Your task to perform on an android device: Open calendar and show me the second week of next month Image 0: 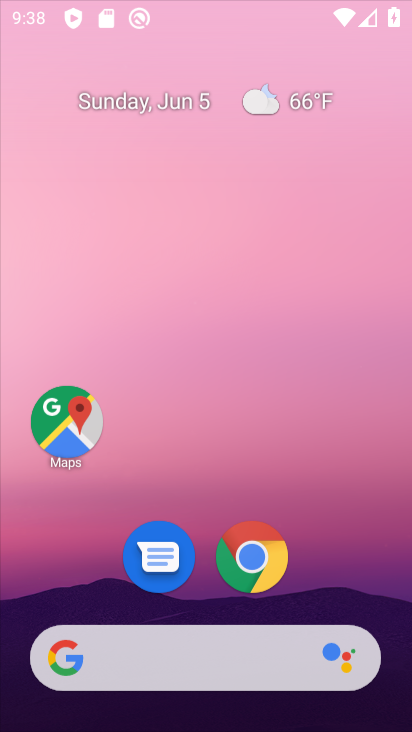
Step 0: press home button
Your task to perform on an android device: Open calendar and show me the second week of next month Image 1: 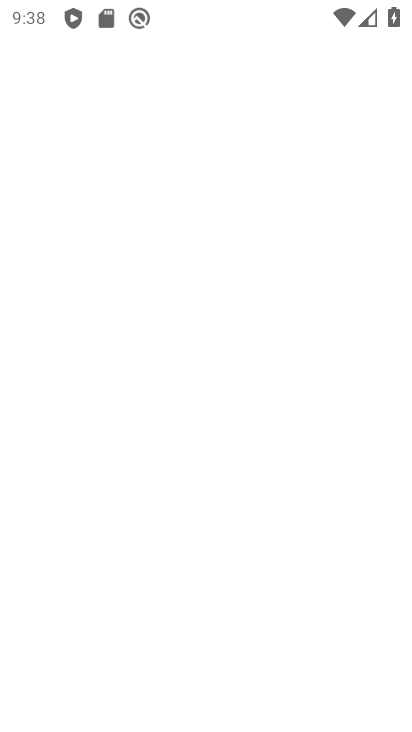
Step 1: drag from (210, 357) to (211, 65)
Your task to perform on an android device: Open calendar and show me the second week of next month Image 2: 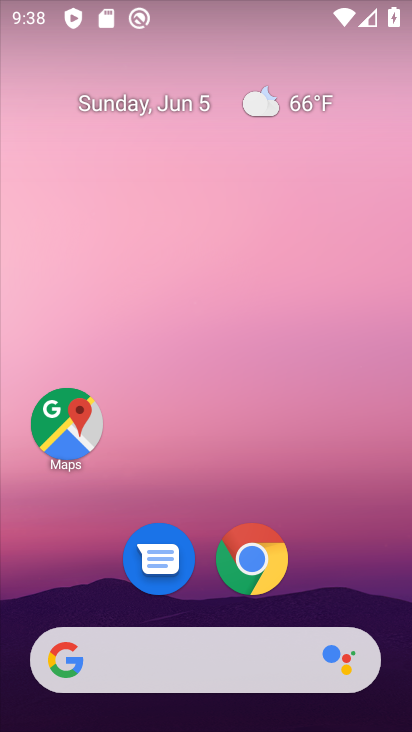
Step 2: drag from (305, 602) to (330, 29)
Your task to perform on an android device: Open calendar and show me the second week of next month Image 3: 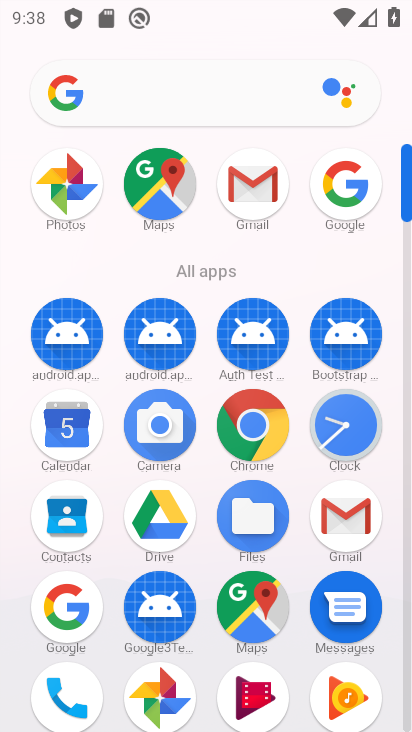
Step 3: click (65, 422)
Your task to perform on an android device: Open calendar and show me the second week of next month Image 4: 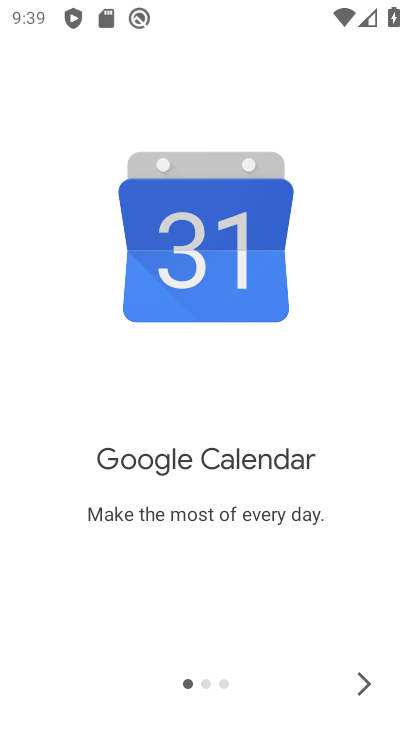
Step 4: click (361, 681)
Your task to perform on an android device: Open calendar and show me the second week of next month Image 5: 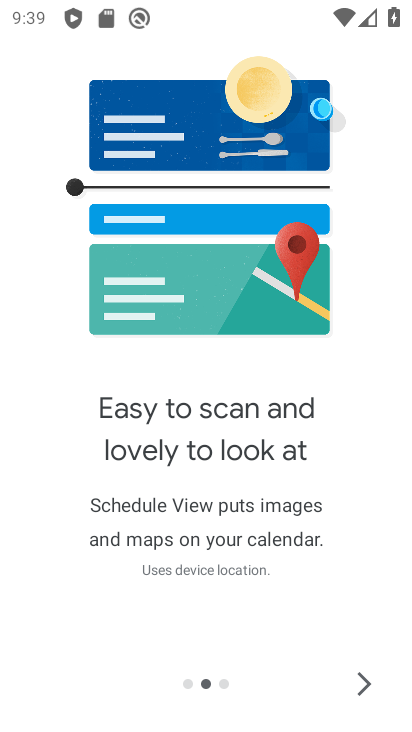
Step 5: click (360, 678)
Your task to perform on an android device: Open calendar and show me the second week of next month Image 6: 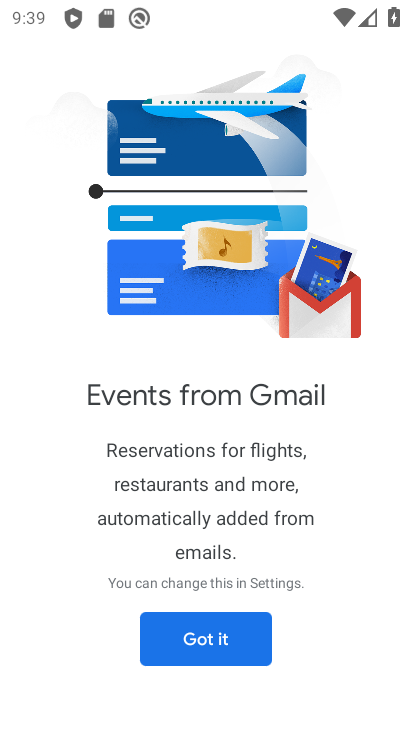
Step 6: click (204, 633)
Your task to perform on an android device: Open calendar and show me the second week of next month Image 7: 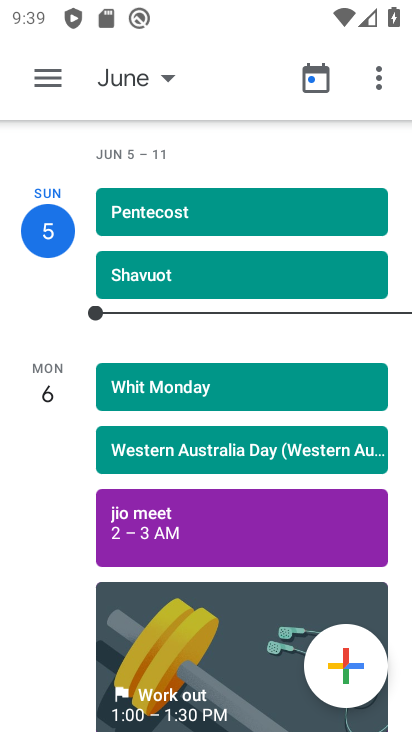
Step 7: click (164, 74)
Your task to perform on an android device: Open calendar and show me the second week of next month Image 8: 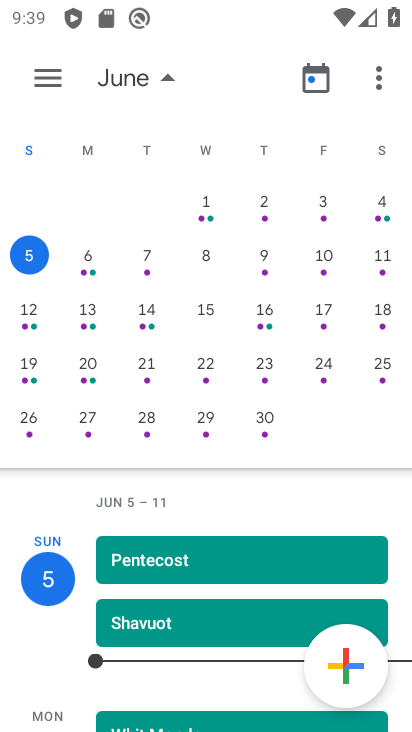
Step 8: drag from (358, 316) to (0, 293)
Your task to perform on an android device: Open calendar and show me the second week of next month Image 9: 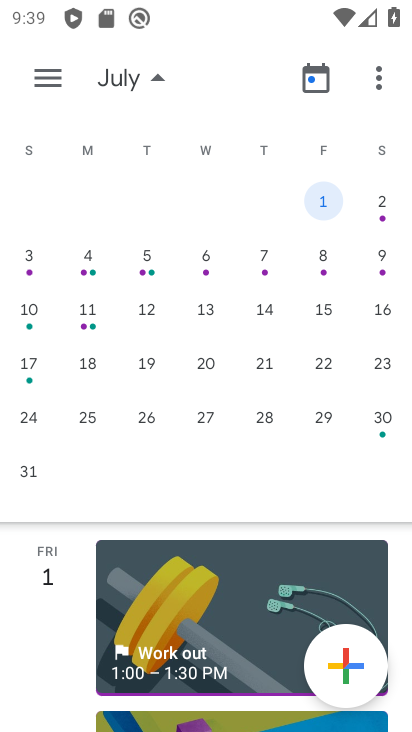
Step 9: click (31, 311)
Your task to perform on an android device: Open calendar and show me the second week of next month Image 10: 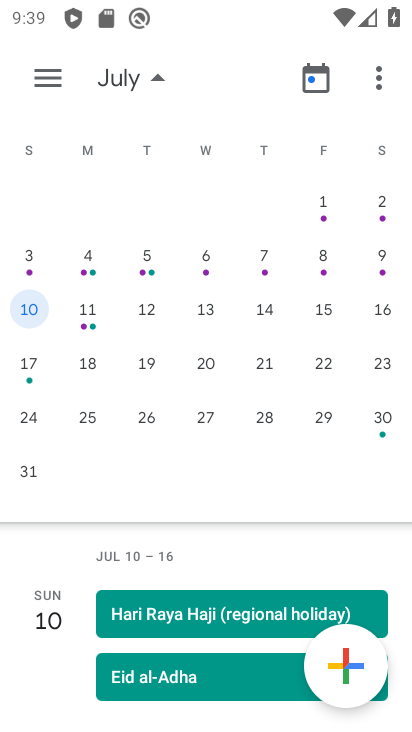
Step 10: click (161, 67)
Your task to perform on an android device: Open calendar and show me the second week of next month Image 11: 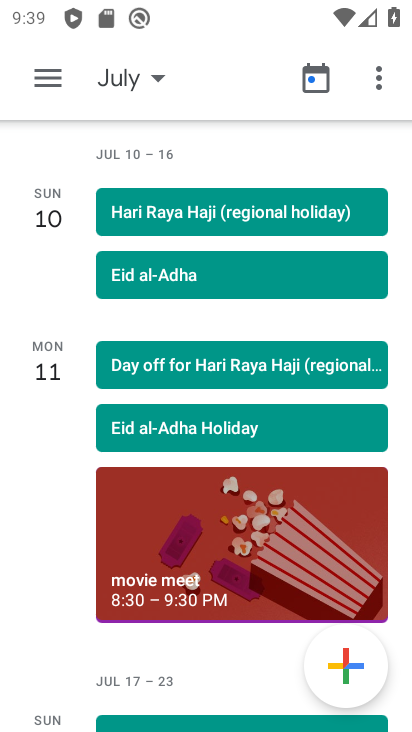
Step 11: task complete